Your task to perform on an android device: clear all cookies in the chrome app Image 0: 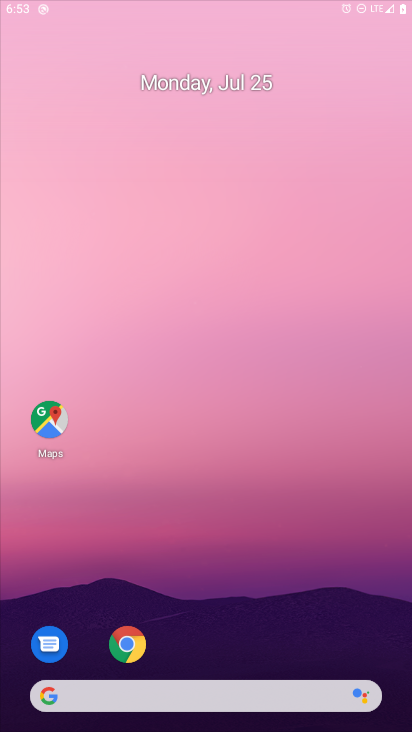
Step 0: press home button
Your task to perform on an android device: clear all cookies in the chrome app Image 1: 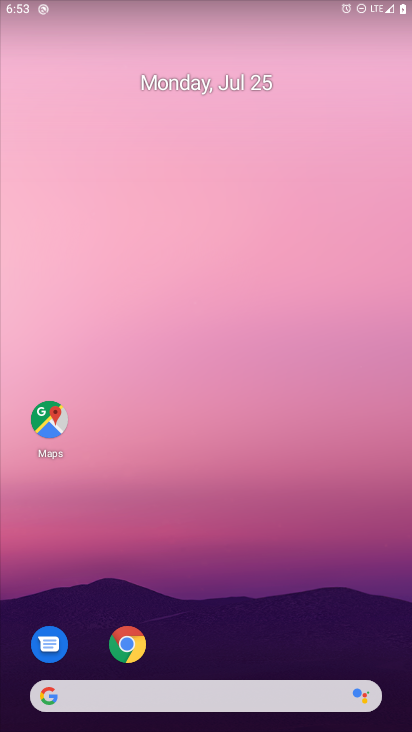
Step 1: drag from (259, 647) to (317, 120)
Your task to perform on an android device: clear all cookies in the chrome app Image 2: 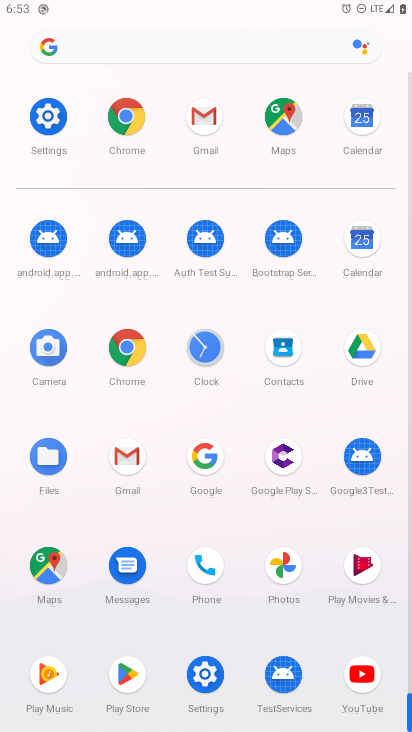
Step 2: click (125, 116)
Your task to perform on an android device: clear all cookies in the chrome app Image 3: 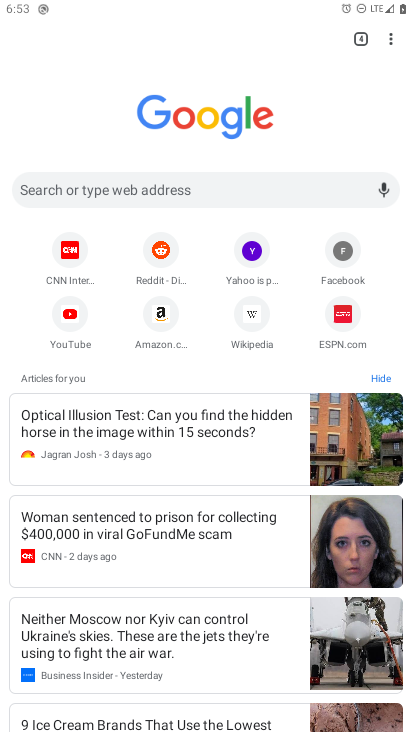
Step 3: drag from (395, 32) to (229, 333)
Your task to perform on an android device: clear all cookies in the chrome app Image 4: 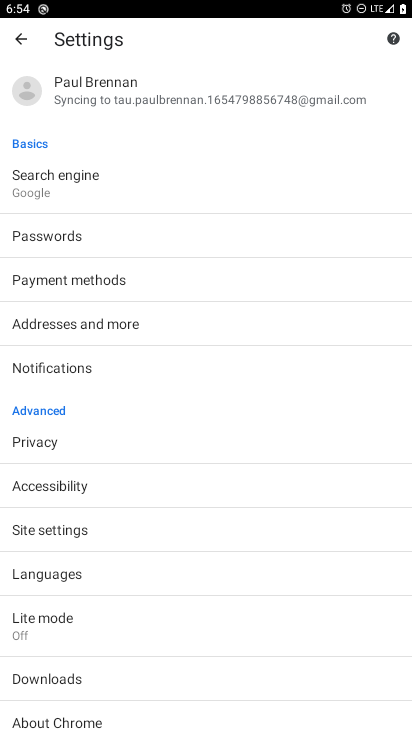
Step 4: click (28, 446)
Your task to perform on an android device: clear all cookies in the chrome app Image 5: 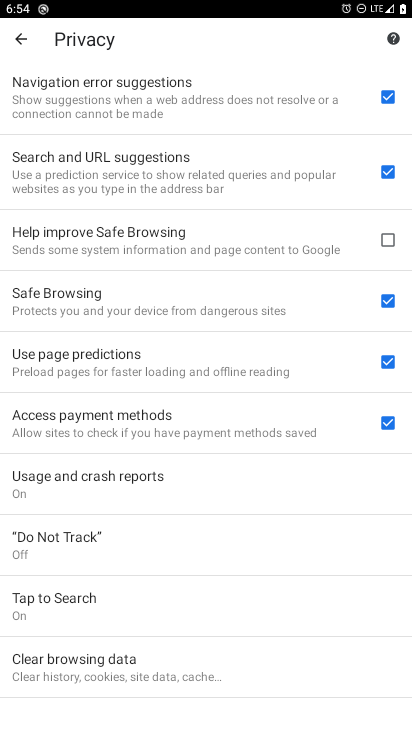
Step 5: click (68, 666)
Your task to perform on an android device: clear all cookies in the chrome app Image 6: 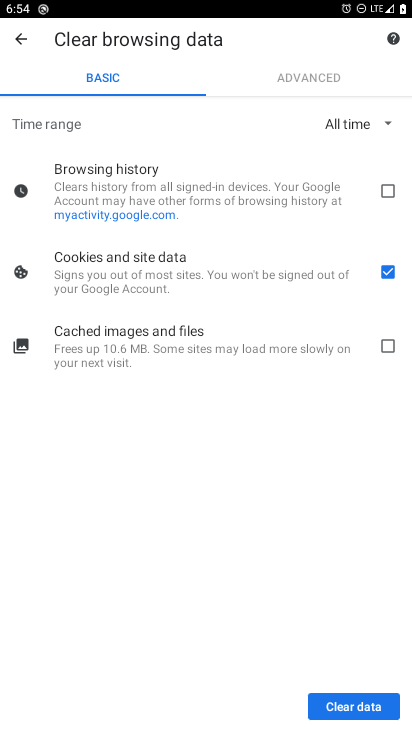
Step 6: click (347, 699)
Your task to perform on an android device: clear all cookies in the chrome app Image 7: 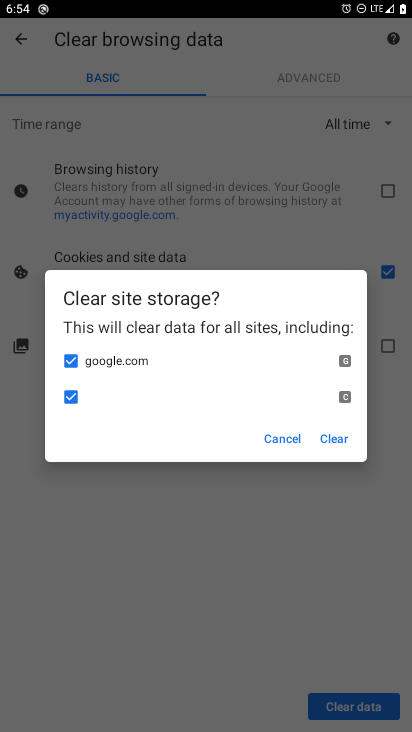
Step 7: click (344, 433)
Your task to perform on an android device: clear all cookies in the chrome app Image 8: 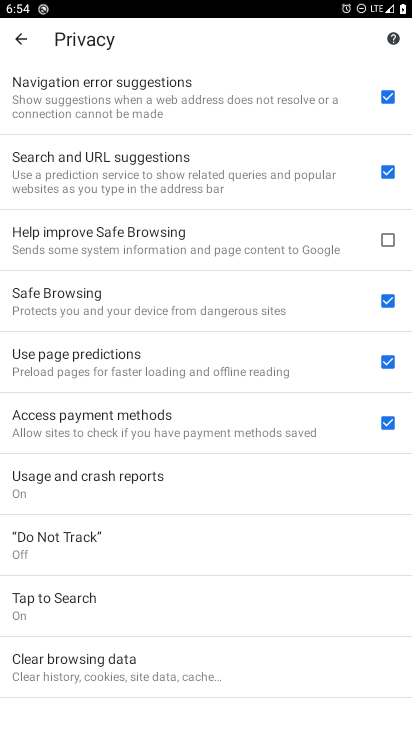
Step 8: task complete